Your task to perform on an android device: Go to accessibility settings Image 0: 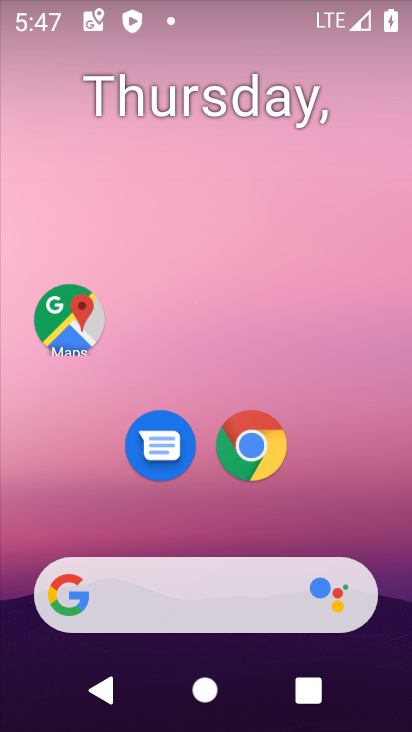
Step 0: drag from (292, 491) to (305, 111)
Your task to perform on an android device: Go to accessibility settings Image 1: 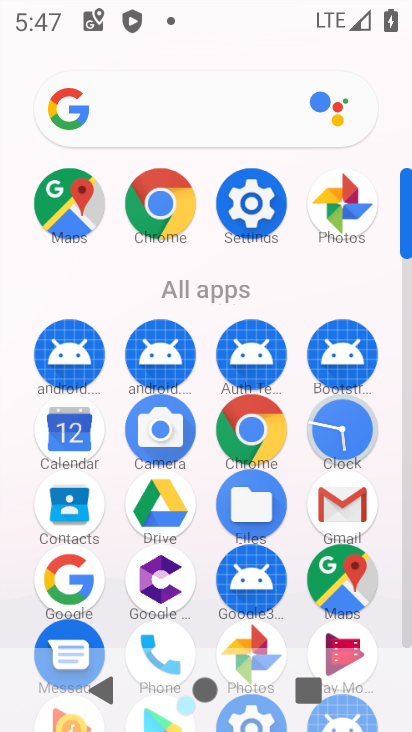
Step 1: click (252, 198)
Your task to perform on an android device: Go to accessibility settings Image 2: 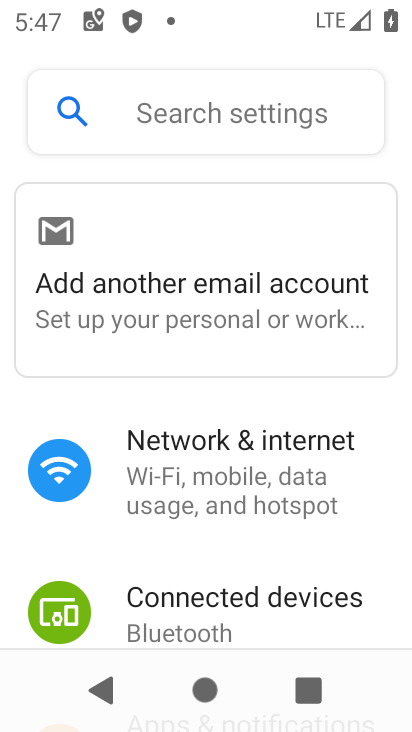
Step 2: drag from (381, 592) to (400, 118)
Your task to perform on an android device: Go to accessibility settings Image 3: 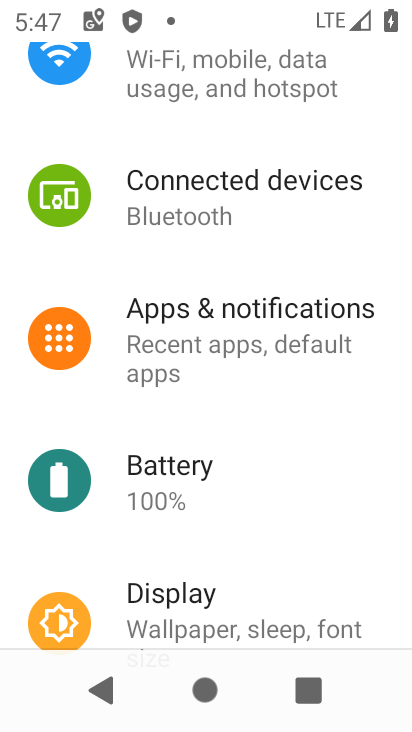
Step 3: drag from (354, 593) to (359, 170)
Your task to perform on an android device: Go to accessibility settings Image 4: 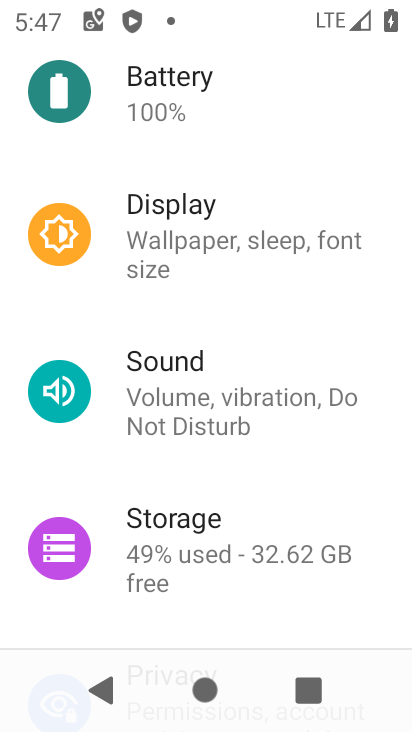
Step 4: drag from (339, 591) to (328, 126)
Your task to perform on an android device: Go to accessibility settings Image 5: 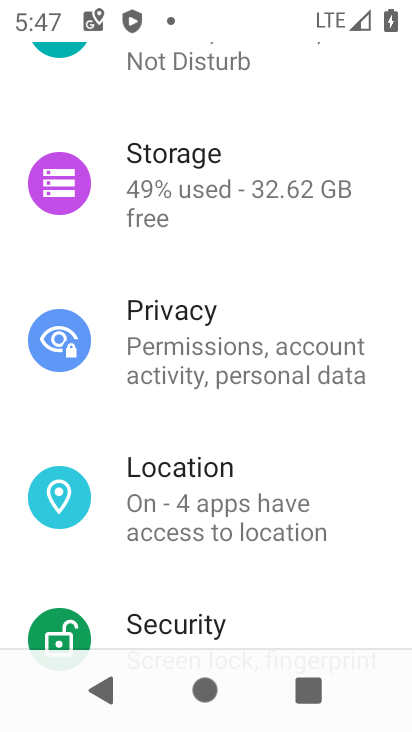
Step 5: drag from (333, 566) to (307, 156)
Your task to perform on an android device: Go to accessibility settings Image 6: 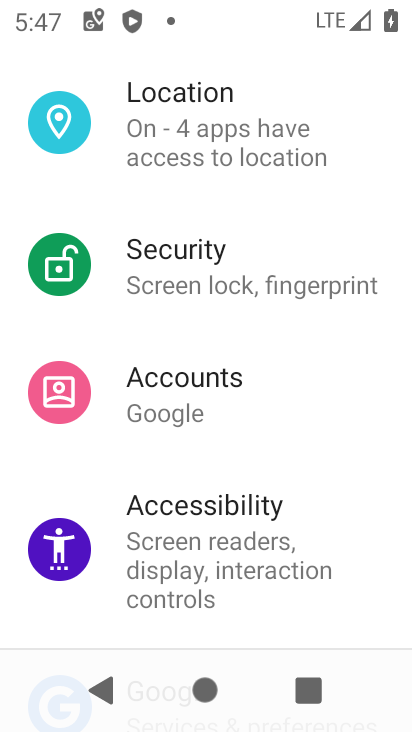
Step 6: click (206, 517)
Your task to perform on an android device: Go to accessibility settings Image 7: 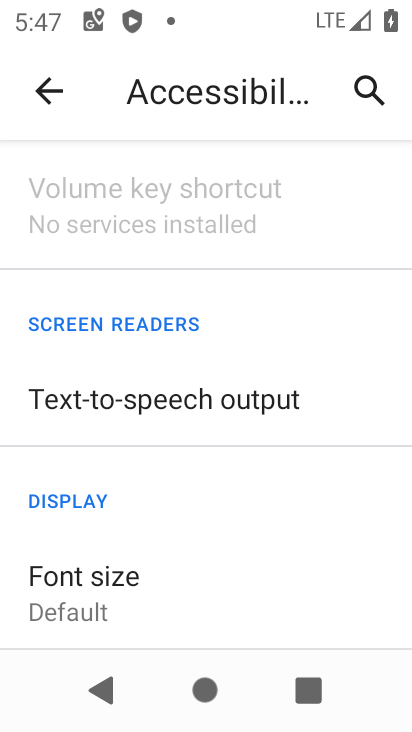
Step 7: task complete